Your task to perform on an android device: Show me the alarms in the clock app Image 0: 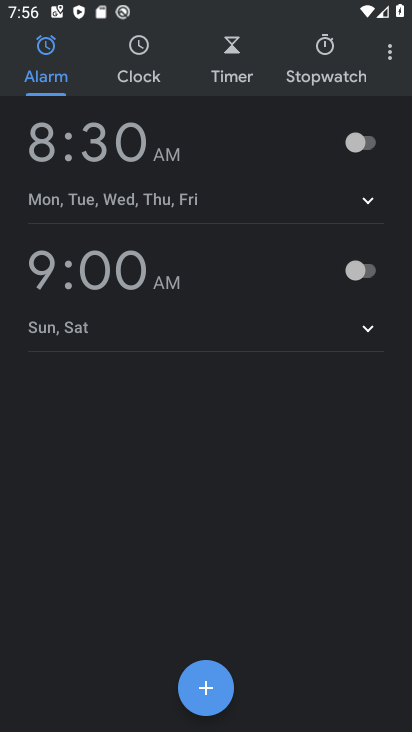
Step 0: drag from (247, 430) to (242, 535)
Your task to perform on an android device: Show me the alarms in the clock app Image 1: 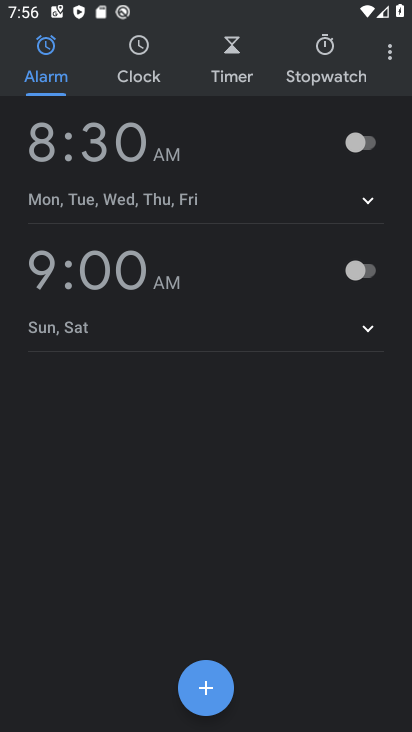
Step 1: task complete